Your task to perform on an android device: see sites visited before in the chrome app Image 0: 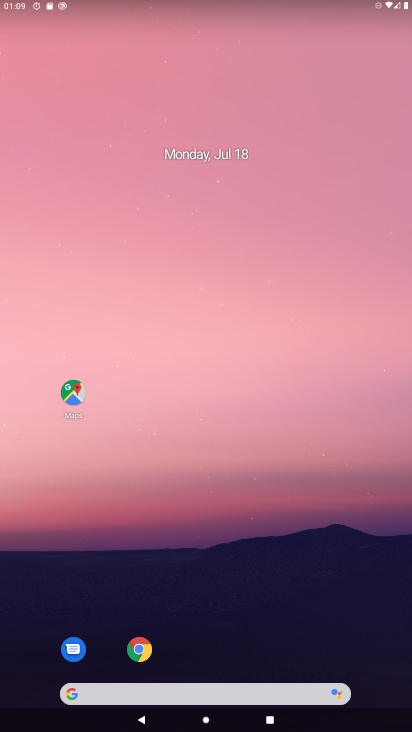
Step 0: click (132, 660)
Your task to perform on an android device: see sites visited before in the chrome app Image 1: 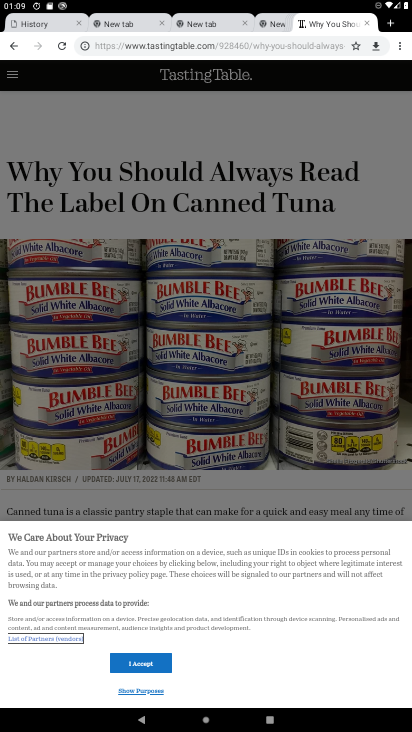
Step 1: click (403, 45)
Your task to perform on an android device: see sites visited before in the chrome app Image 2: 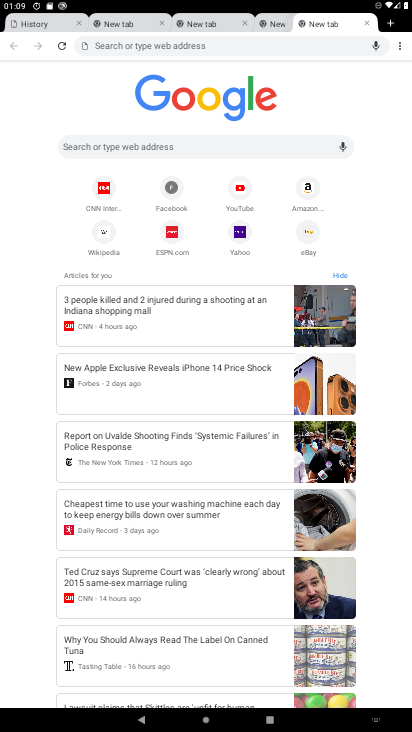
Step 2: click (404, 41)
Your task to perform on an android device: see sites visited before in the chrome app Image 3: 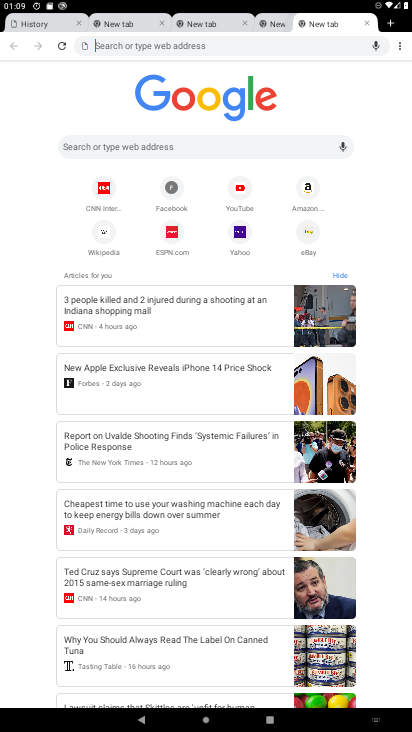
Step 3: click (394, 41)
Your task to perform on an android device: see sites visited before in the chrome app Image 4: 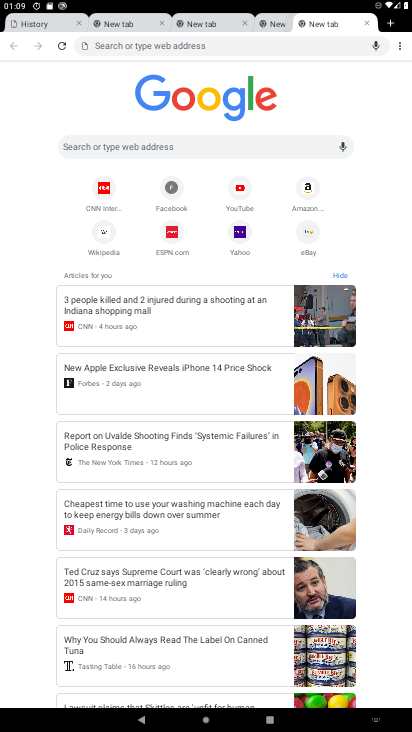
Step 4: task complete